Your task to perform on an android device: open app "Grab" (install if not already installed) Image 0: 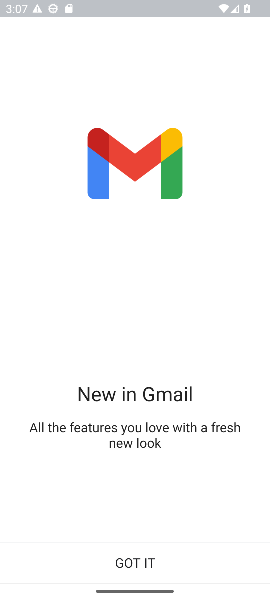
Step 0: press back button
Your task to perform on an android device: open app "Grab" (install if not already installed) Image 1: 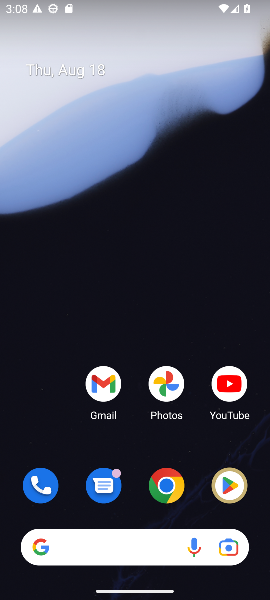
Step 1: click (228, 480)
Your task to perform on an android device: open app "Grab" (install if not already installed) Image 2: 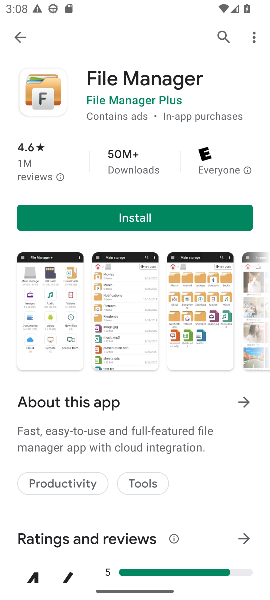
Step 2: click (223, 35)
Your task to perform on an android device: open app "Grab" (install if not already installed) Image 3: 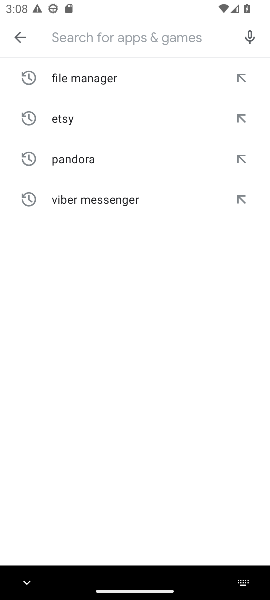
Step 3: click (89, 41)
Your task to perform on an android device: open app "Grab" (install if not already installed) Image 4: 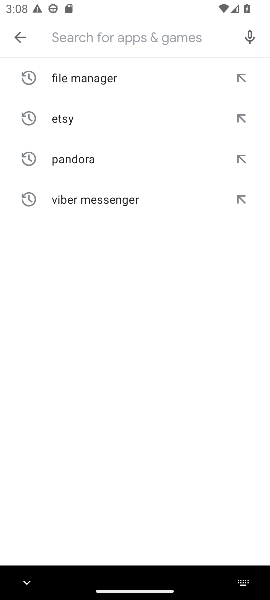
Step 4: type "grab"
Your task to perform on an android device: open app "Grab" (install if not already installed) Image 5: 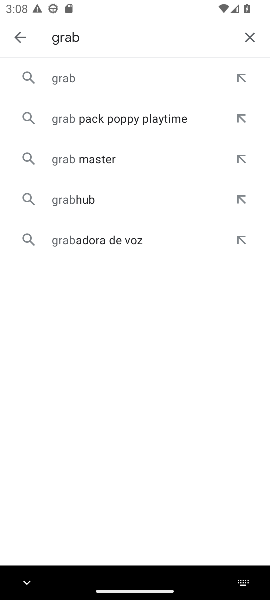
Step 5: click (84, 73)
Your task to perform on an android device: open app "Grab" (install if not already installed) Image 6: 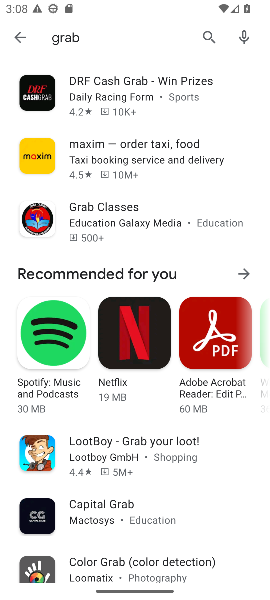
Step 6: task complete